Your task to perform on an android device: change keyboard looks Image 0: 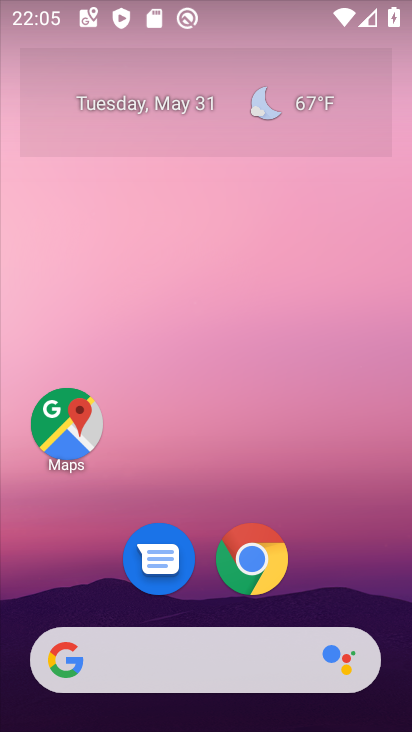
Step 0: drag from (305, 590) to (300, 49)
Your task to perform on an android device: change keyboard looks Image 1: 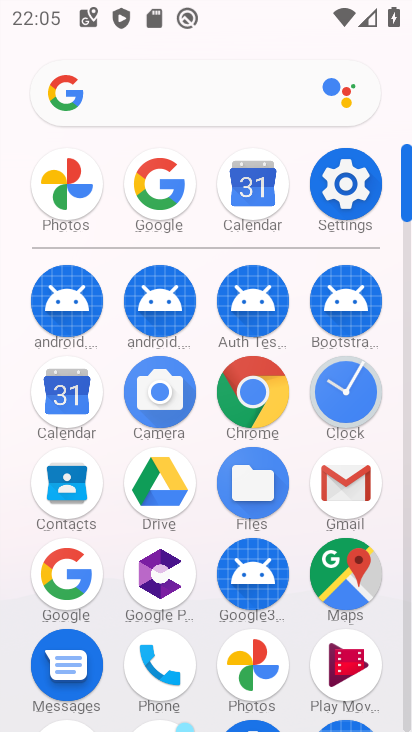
Step 1: click (346, 189)
Your task to perform on an android device: change keyboard looks Image 2: 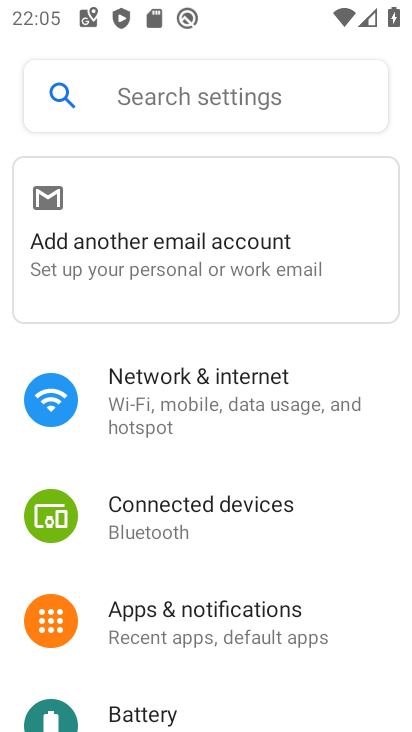
Step 2: drag from (275, 631) to (314, 92)
Your task to perform on an android device: change keyboard looks Image 3: 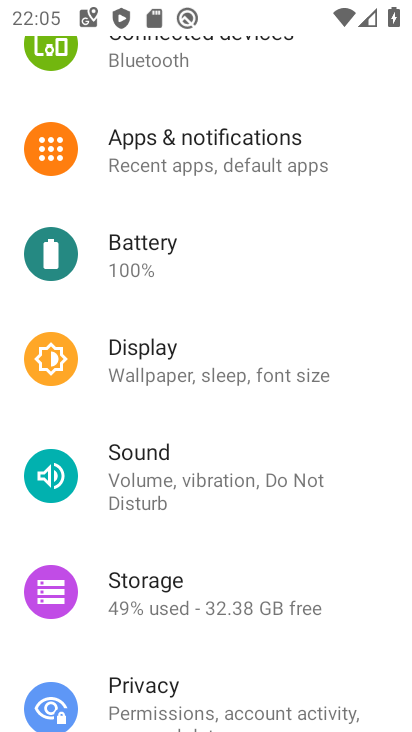
Step 3: drag from (225, 615) to (234, 85)
Your task to perform on an android device: change keyboard looks Image 4: 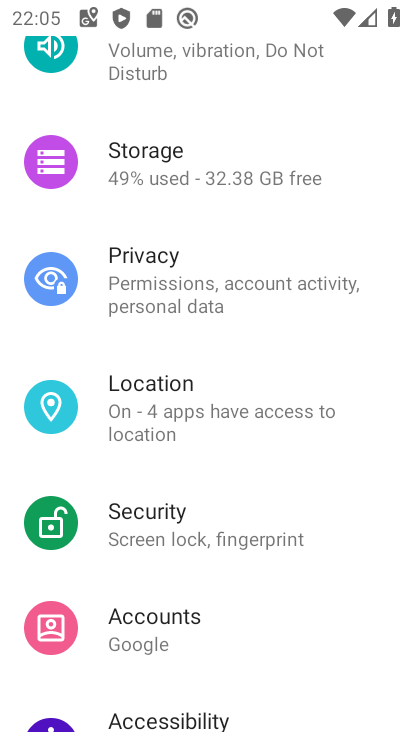
Step 4: drag from (214, 665) to (252, 177)
Your task to perform on an android device: change keyboard looks Image 5: 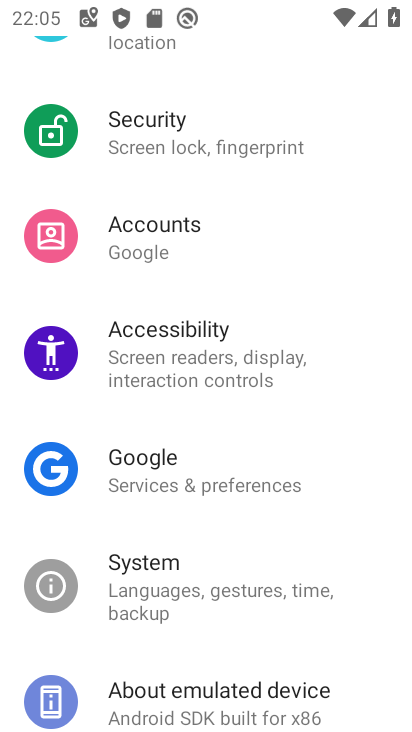
Step 5: drag from (243, 648) to (244, 417)
Your task to perform on an android device: change keyboard looks Image 6: 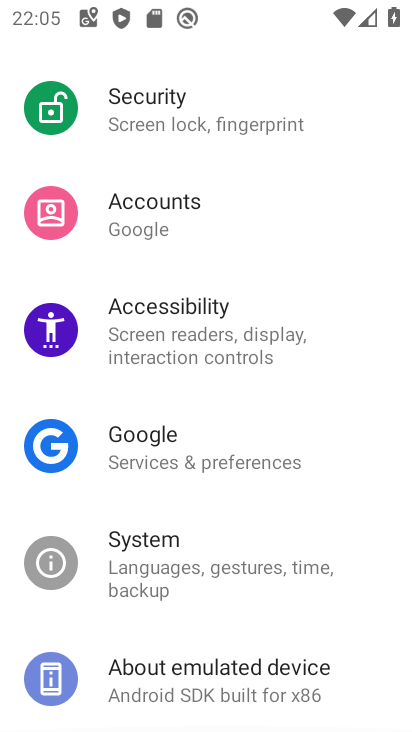
Step 6: click (147, 570)
Your task to perform on an android device: change keyboard looks Image 7: 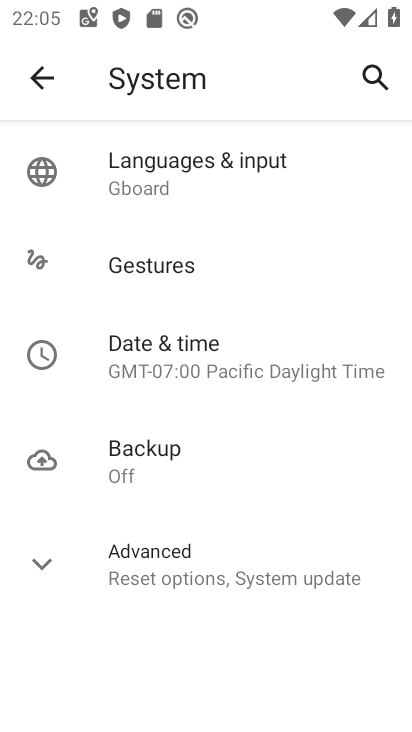
Step 7: click (185, 173)
Your task to perform on an android device: change keyboard looks Image 8: 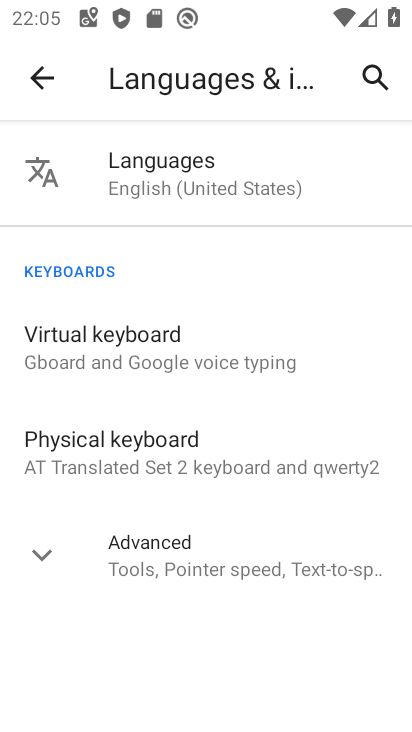
Step 8: click (145, 375)
Your task to perform on an android device: change keyboard looks Image 9: 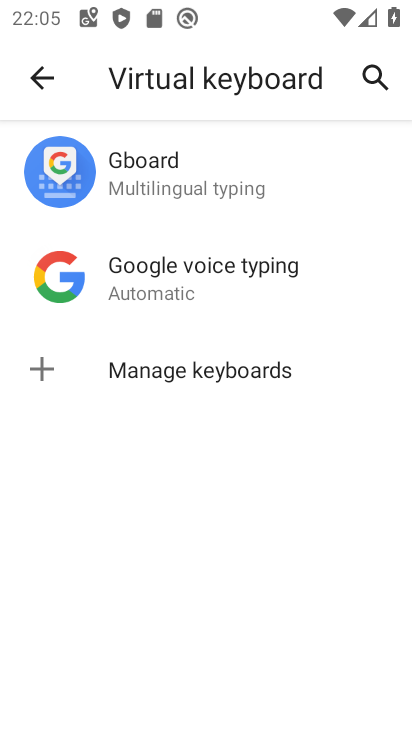
Step 9: click (162, 173)
Your task to perform on an android device: change keyboard looks Image 10: 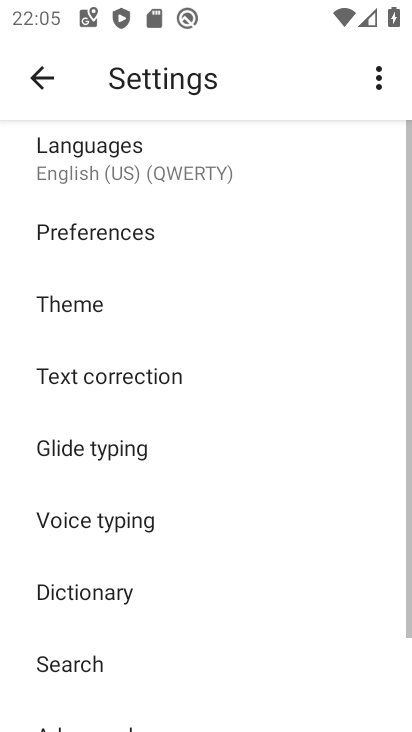
Step 10: click (102, 303)
Your task to perform on an android device: change keyboard looks Image 11: 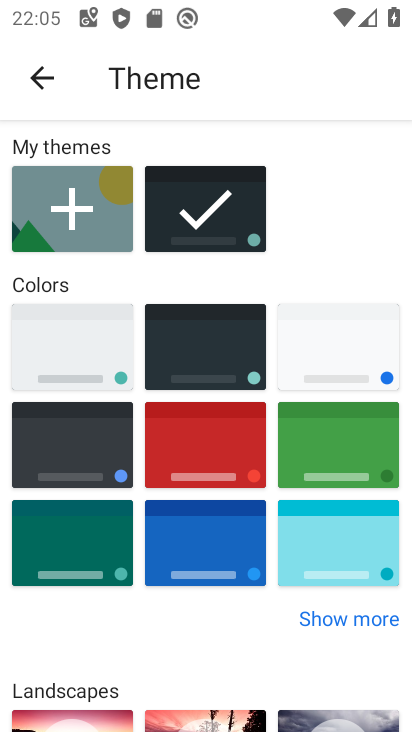
Step 11: click (181, 356)
Your task to perform on an android device: change keyboard looks Image 12: 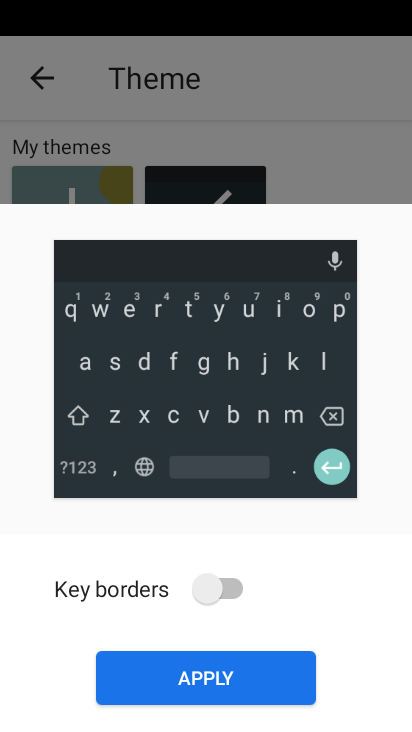
Step 12: click (216, 685)
Your task to perform on an android device: change keyboard looks Image 13: 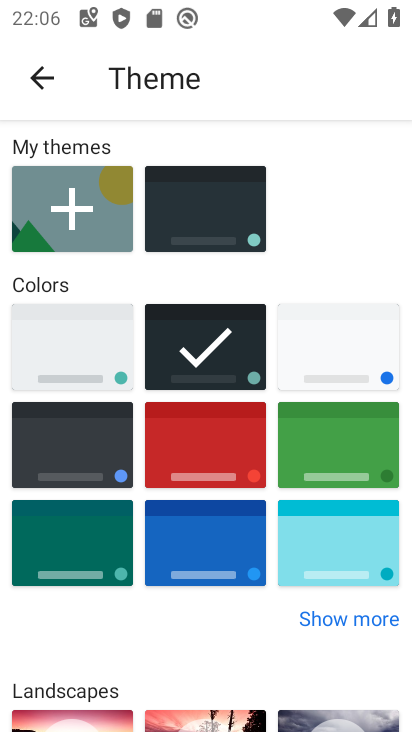
Step 13: task complete